Your task to perform on an android device: Search for Italian restaurants on Maps Image 0: 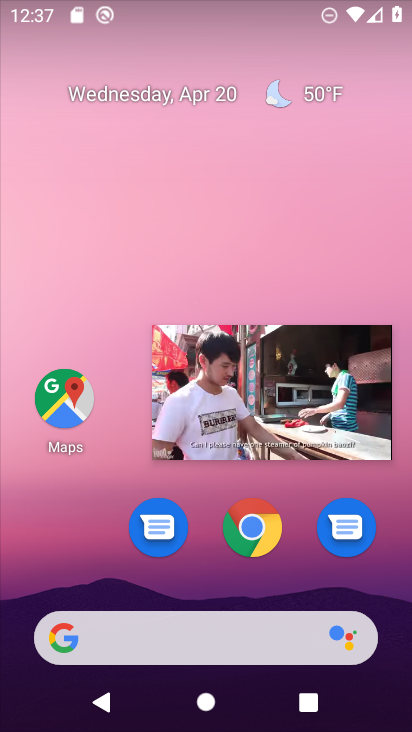
Step 0: click (326, 395)
Your task to perform on an android device: Search for Italian restaurants on Maps Image 1: 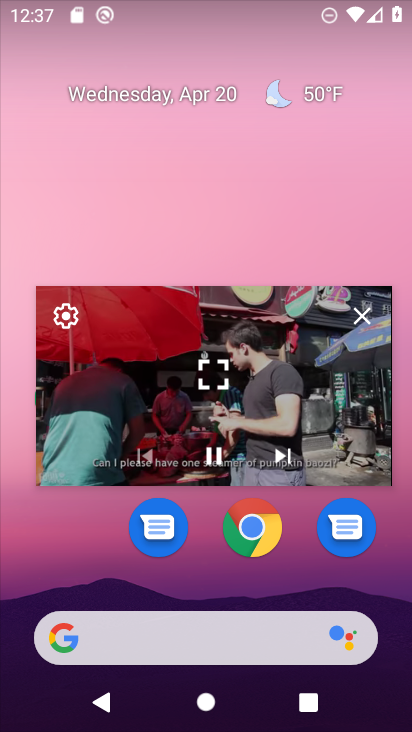
Step 1: click (360, 317)
Your task to perform on an android device: Search for Italian restaurants on Maps Image 2: 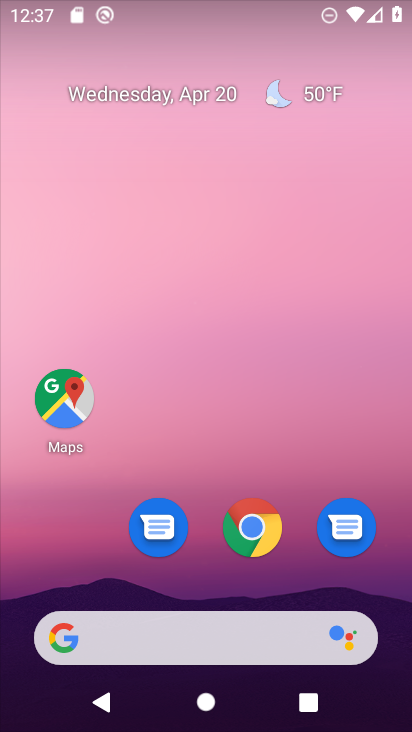
Step 2: click (57, 389)
Your task to perform on an android device: Search for Italian restaurants on Maps Image 3: 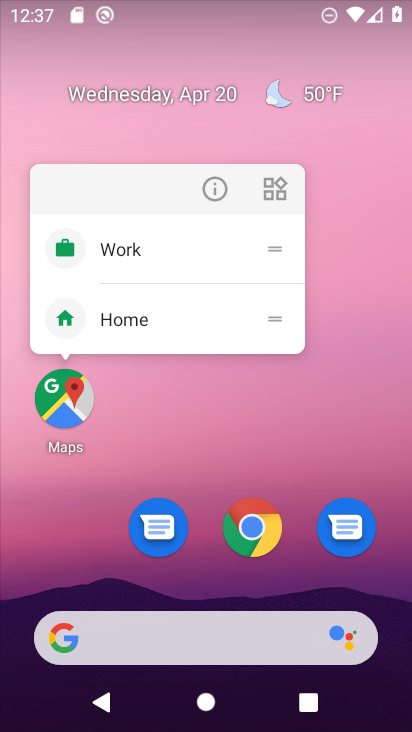
Step 3: click (55, 401)
Your task to perform on an android device: Search for Italian restaurants on Maps Image 4: 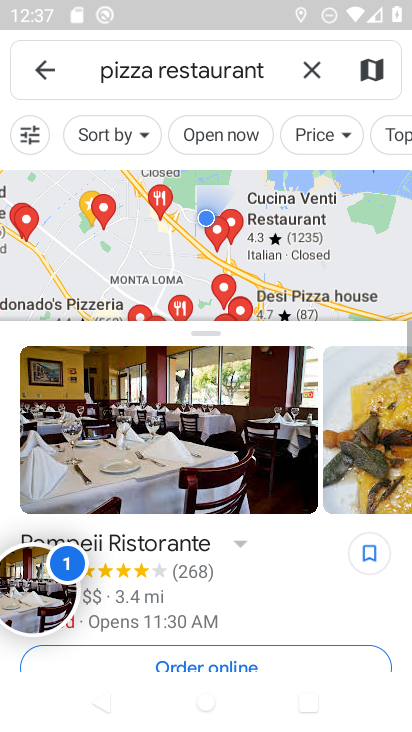
Step 4: click (315, 73)
Your task to perform on an android device: Search for Italian restaurants on Maps Image 5: 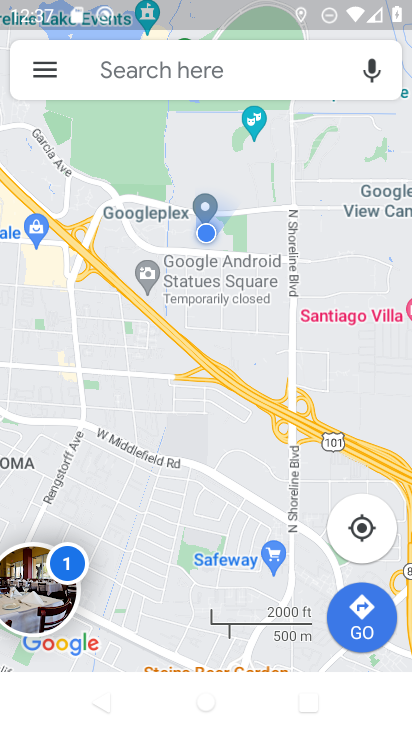
Step 5: click (146, 65)
Your task to perform on an android device: Search for Italian restaurants on Maps Image 6: 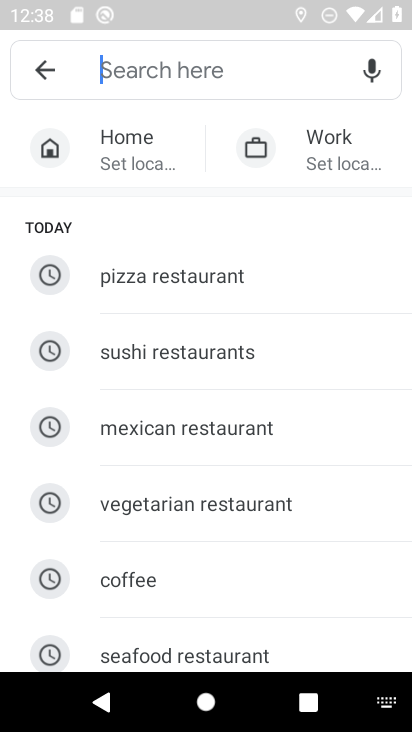
Step 6: type "italian restaurant"
Your task to perform on an android device: Search for Italian restaurants on Maps Image 7: 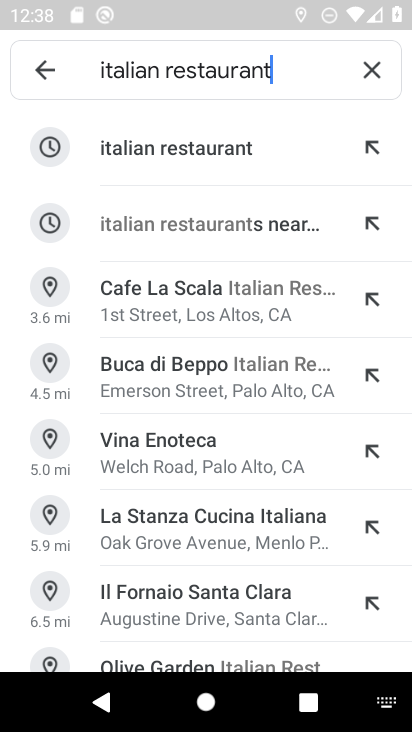
Step 7: click (163, 135)
Your task to perform on an android device: Search for Italian restaurants on Maps Image 8: 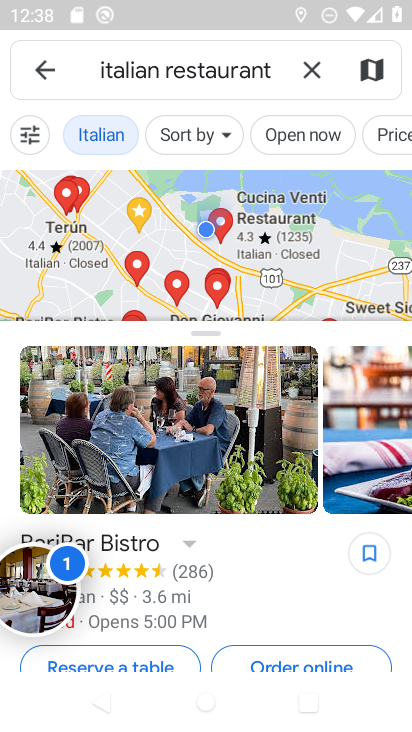
Step 8: task complete